Your task to perform on an android device: check battery use Image 0: 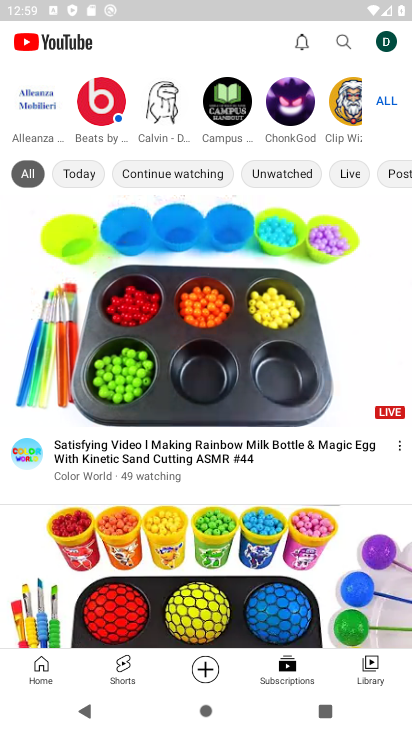
Step 0: press home button
Your task to perform on an android device: check battery use Image 1: 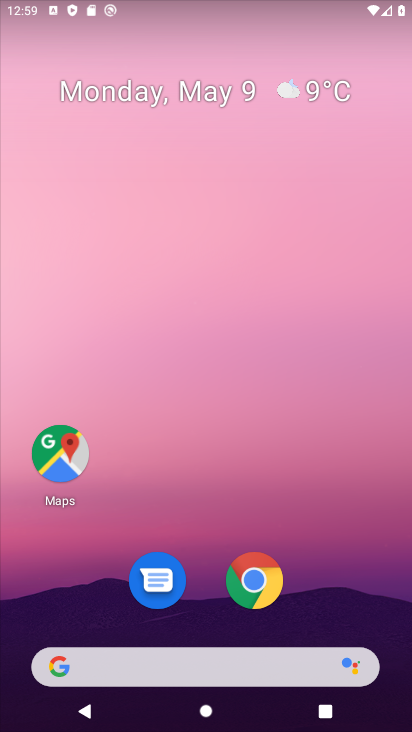
Step 1: drag from (323, 592) to (264, 78)
Your task to perform on an android device: check battery use Image 2: 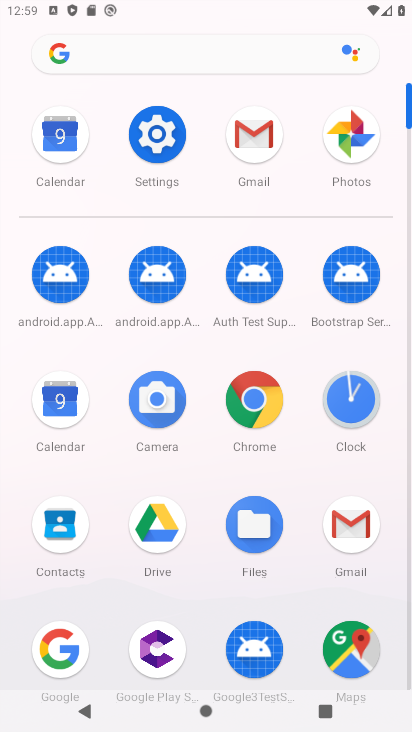
Step 2: click (161, 126)
Your task to perform on an android device: check battery use Image 3: 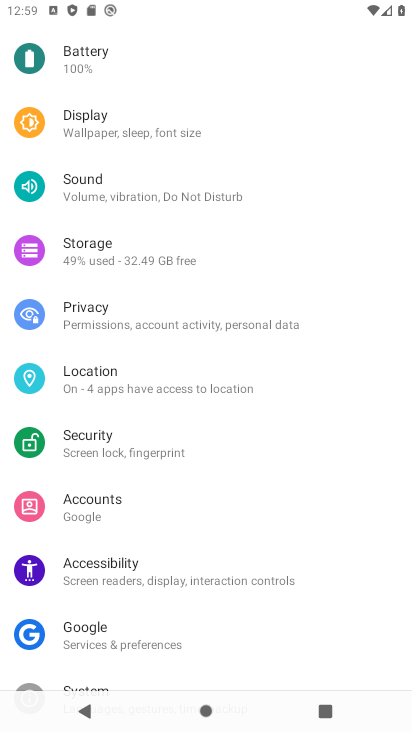
Step 3: click (140, 67)
Your task to perform on an android device: check battery use Image 4: 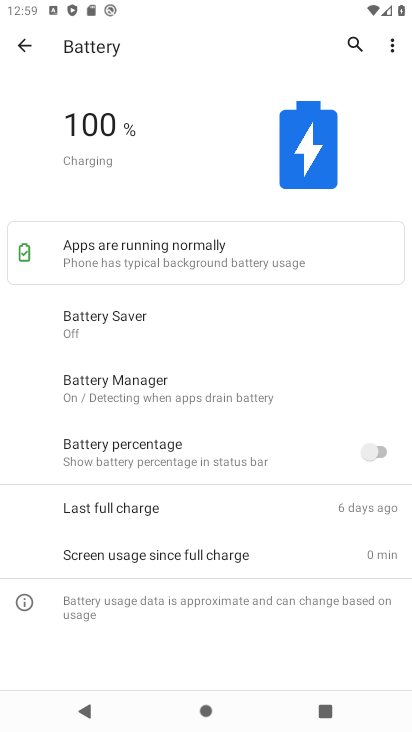
Step 4: click (393, 43)
Your task to perform on an android device: check battery use Image 5: 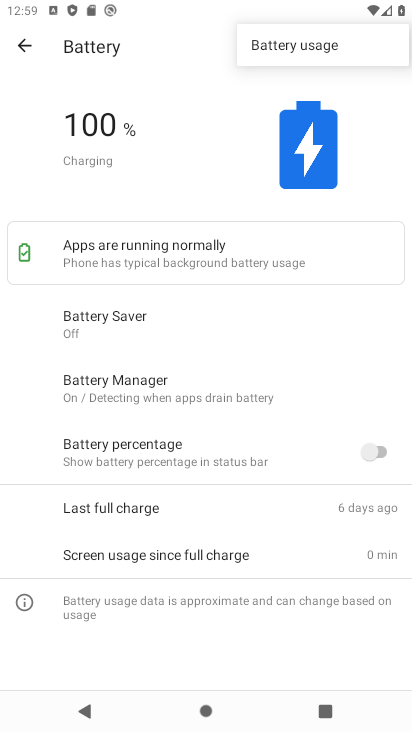
Step 5: click (296, 46)
Your task to perform on an android device: check battery use Image 6: 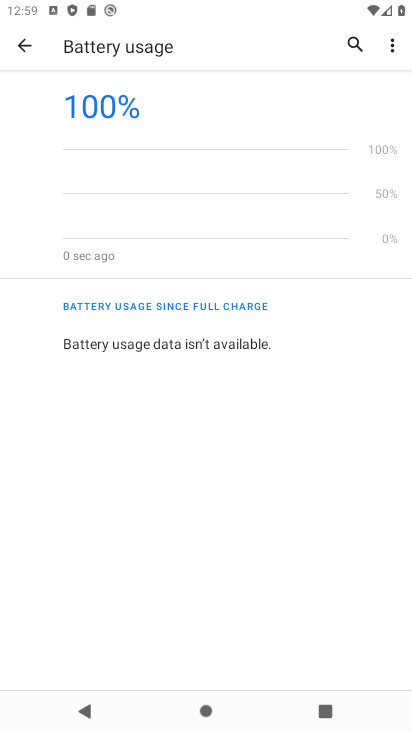
Step 6: task complete